Your task to perform on an android device: set an alarm Image 0: 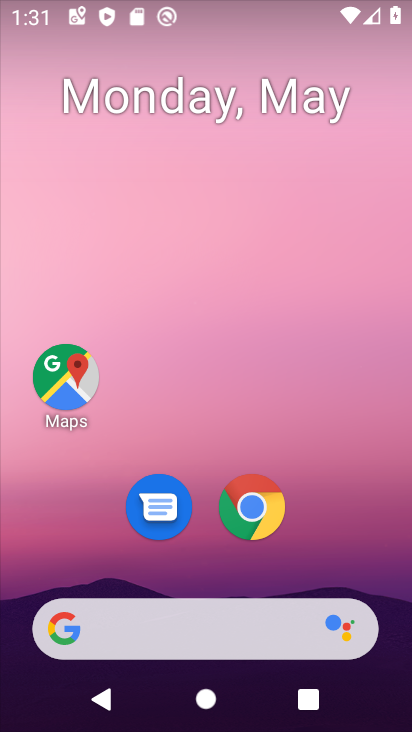
Step 0: drag from (216, 719) to (148, 106)
Your task to perform on an android device: set an alarm Image 1: 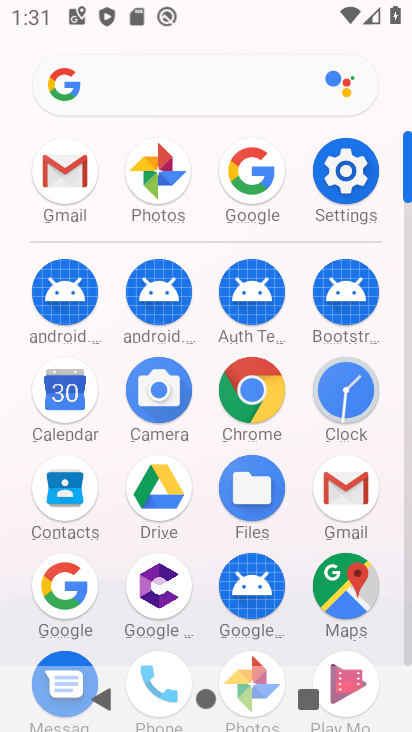
Step 1: click (349, 380)
Your task to perform on an android device: set an alarm Image 2: 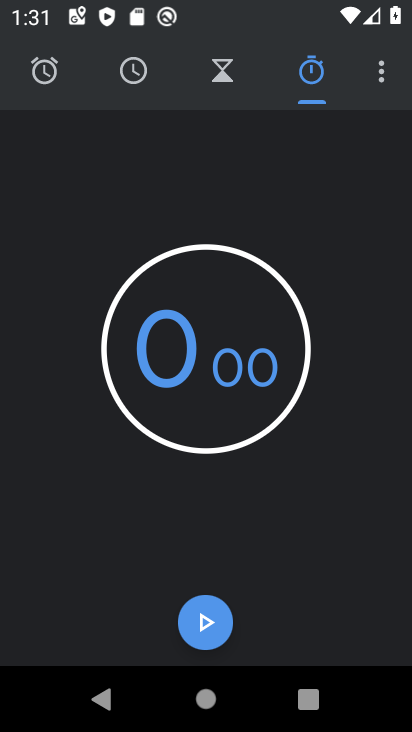
Step 2: click (32, 73)
Your task to perform on an android device: set an alarm Image 3: 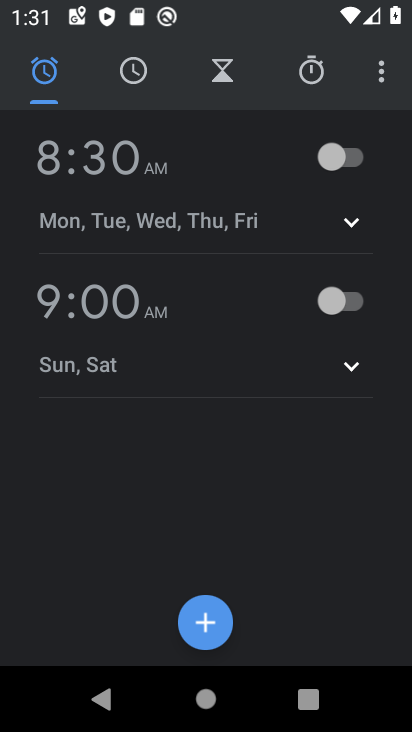
Step 3: click (197, 614)
Your task to perform on an android device: set an alarm Image 4: 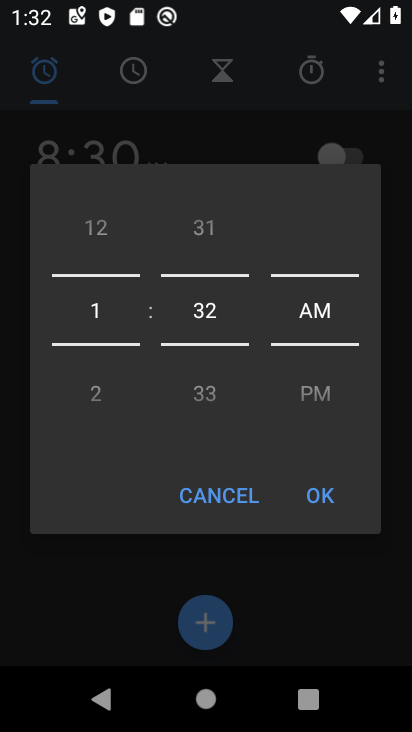
Step 4: drag from (100, 392) to (95, 16)
Your task to perform on an android device: set an alarm Image 5: 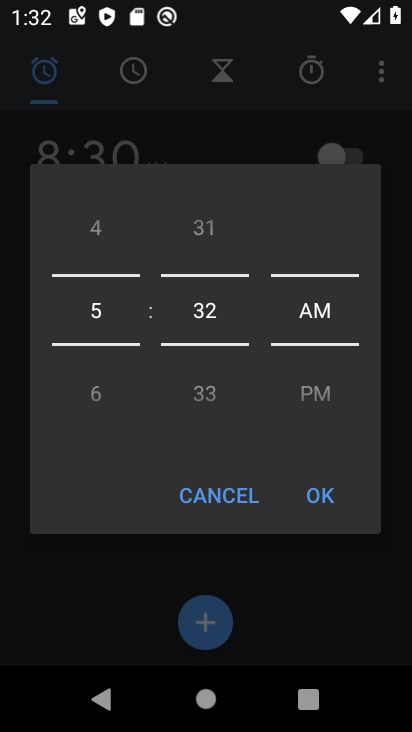
Step 5: click (203, 227)
Your task to perform on an android device: set an alarm Image 6: 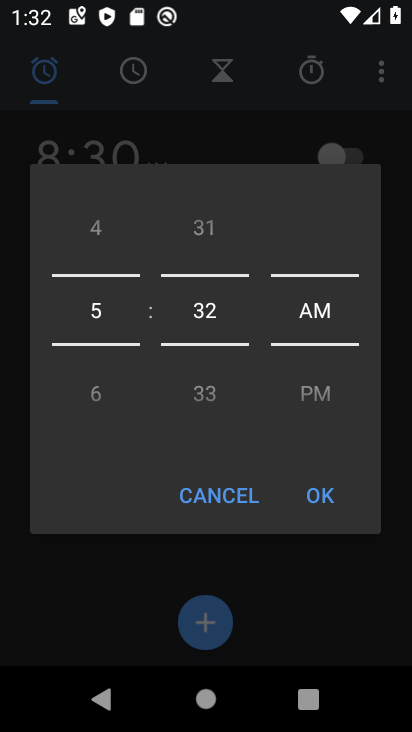
Step 6: click (325, 387)
Your task to perform on an android device: set an alarm Image 7: 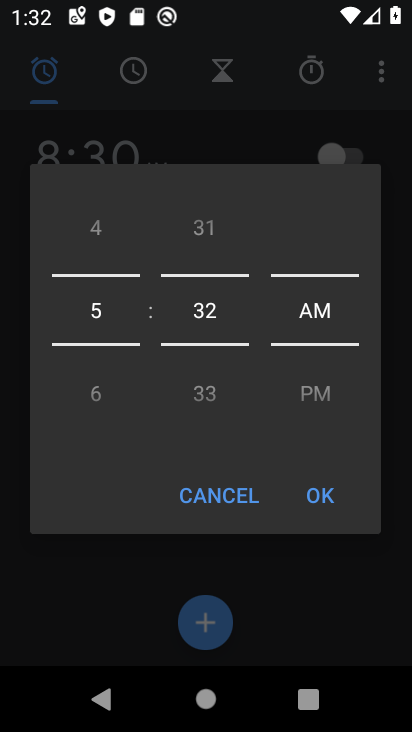
Step 7: click (320, 493)
Your task to perform on an android device: set an alarm Image 8: 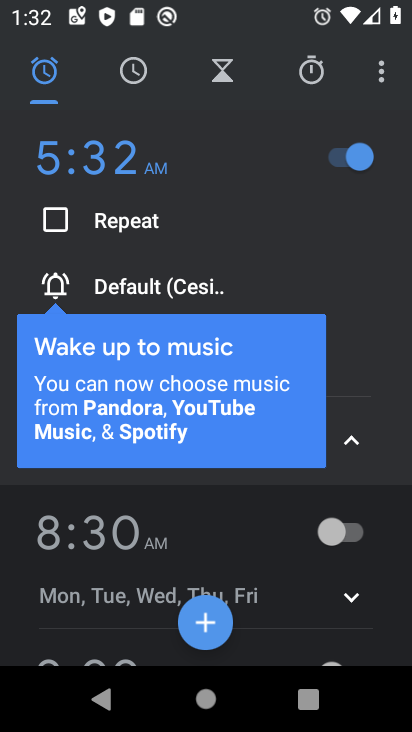
Step 8: task complete